Your task to perform on an android device: Open ESPN.com Image 0: 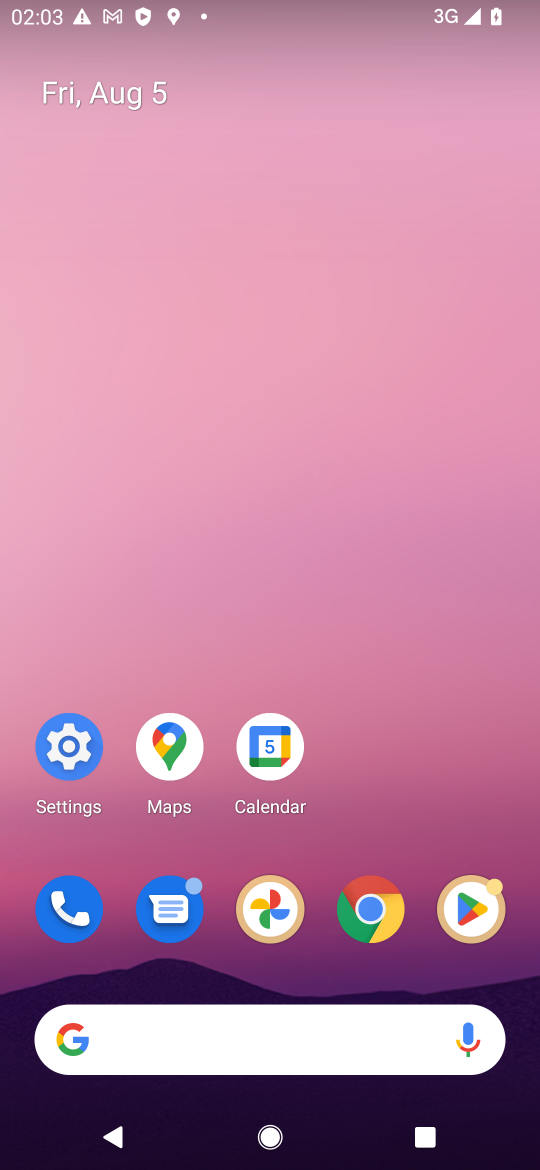
Step 0: click (372, 907)
Your task to perform on an android device: Open ESPN.com Image 1: 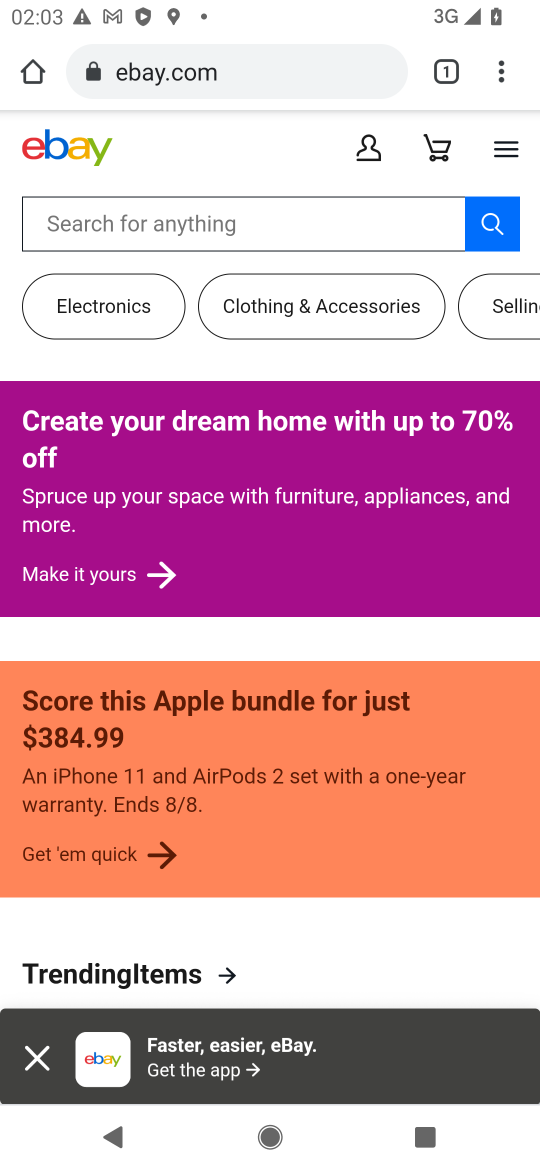
Step 1: click (500, 69)
Your task to perform on an android device: Open ESPN.com Image 2: 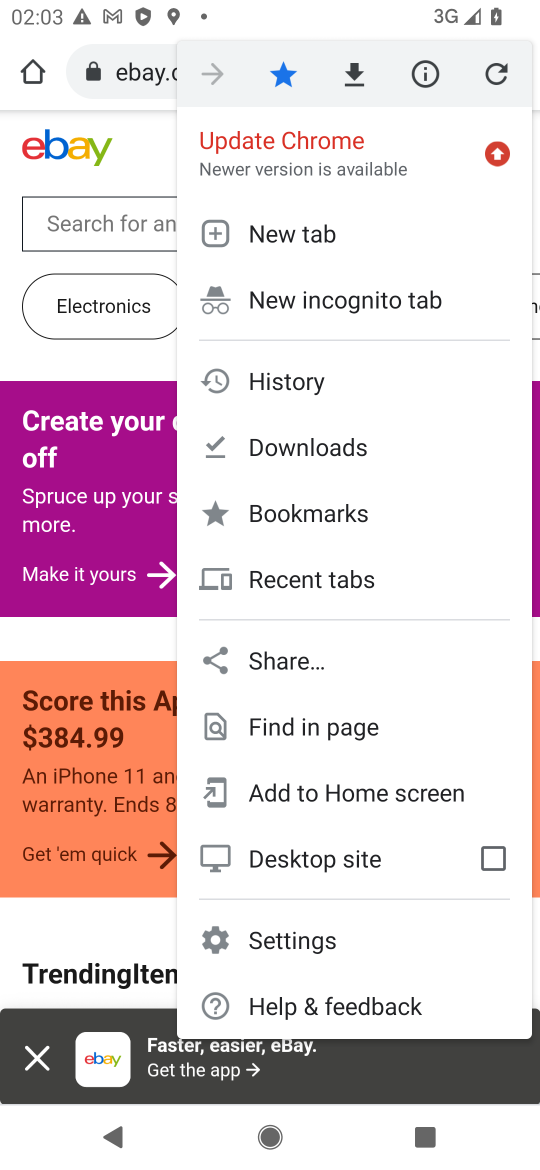
Step 2: click (304, 225)
Your task to perform on an android device: Open ESPN.com Image 3: 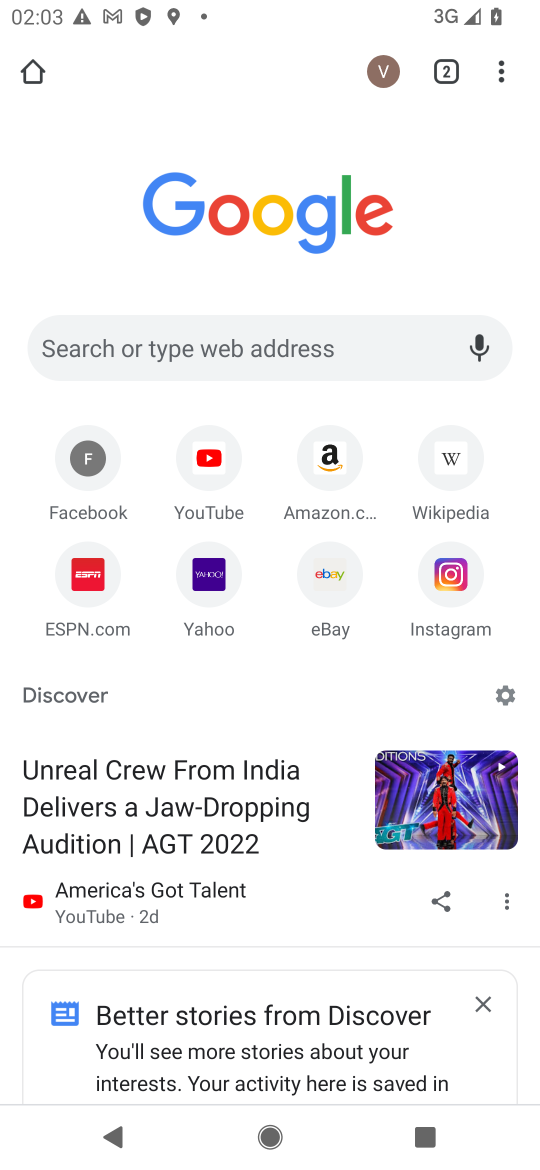
Step 3: click (87, 580)
Your task to perform on an android device: Open ESPN.com Image 4: 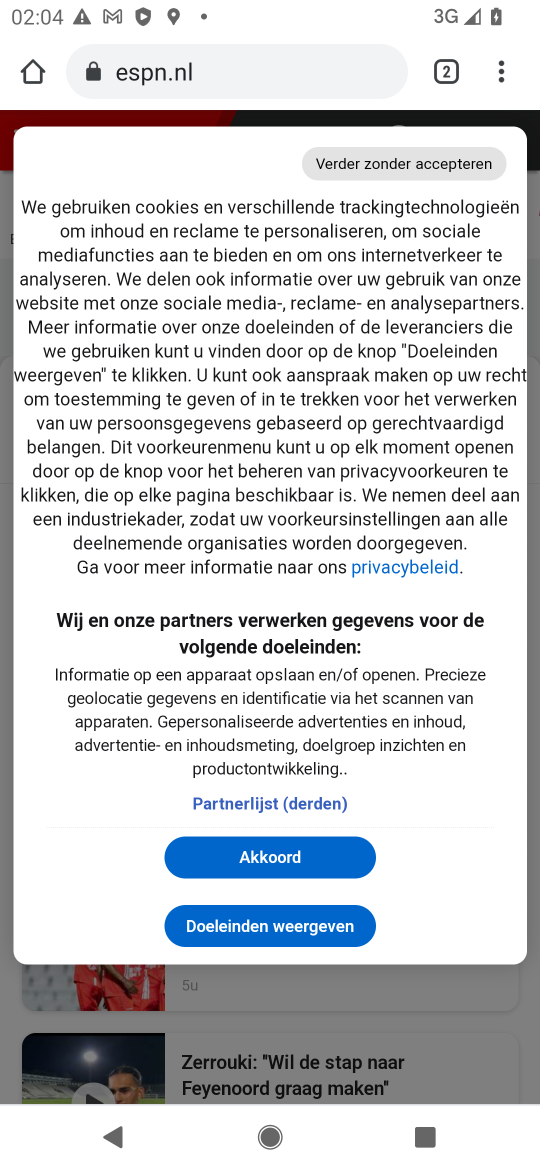
Step 4: click (300, 870)
Your task to perform on an android device: Open ESPN.com Image 5: 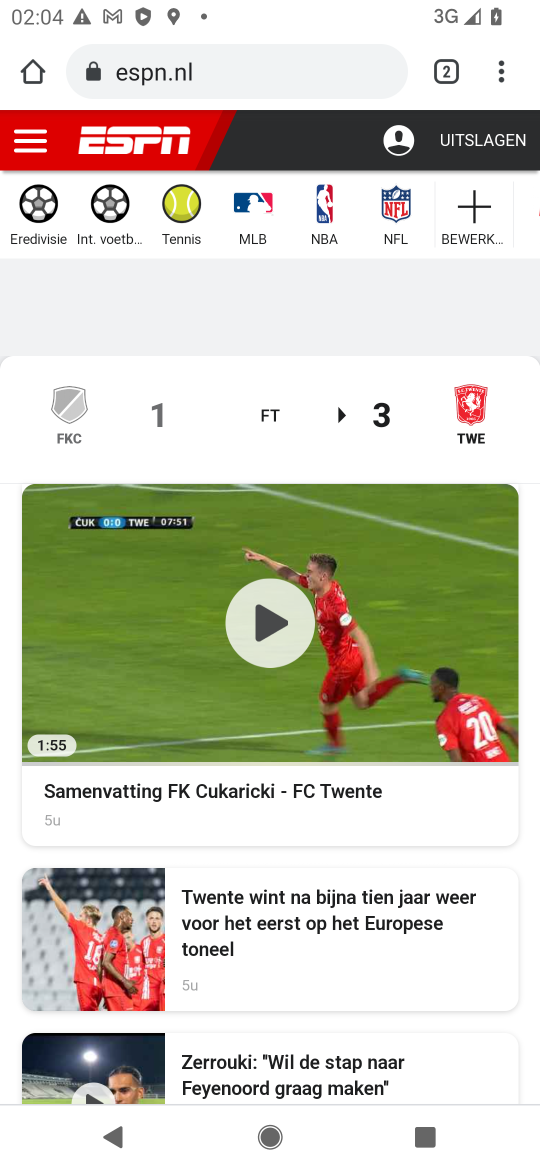
Step 5: task complete